Your task to perform on an android device: Go to Google Image 0: 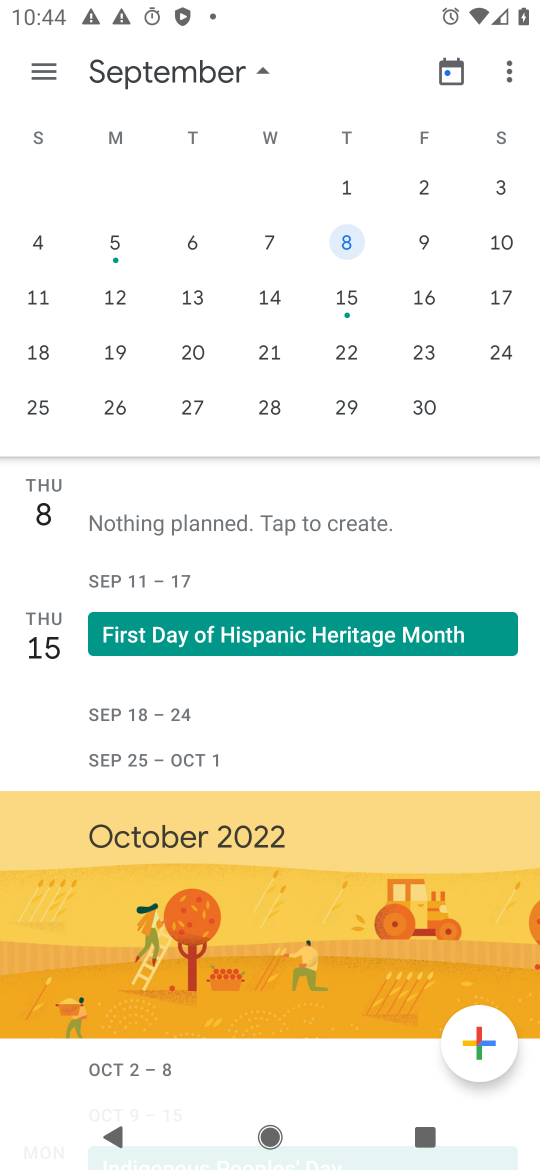
Step 0: press home button
Your task to perform on an android device: Go to Google Image 1: 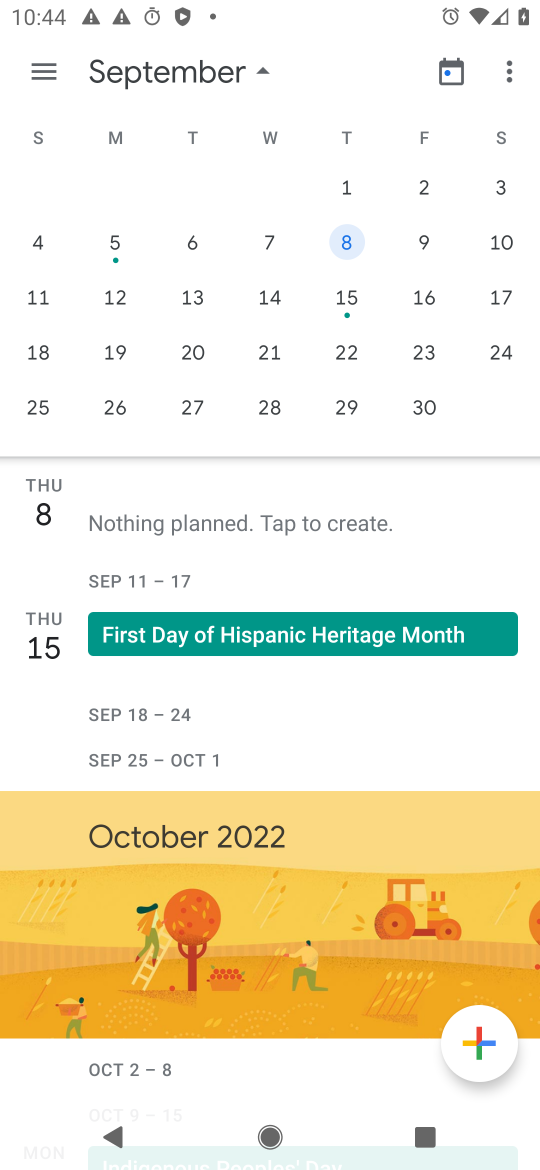
Step 1: click (356, 428)
Your task to perform on an android device: Go to Google Image 2: 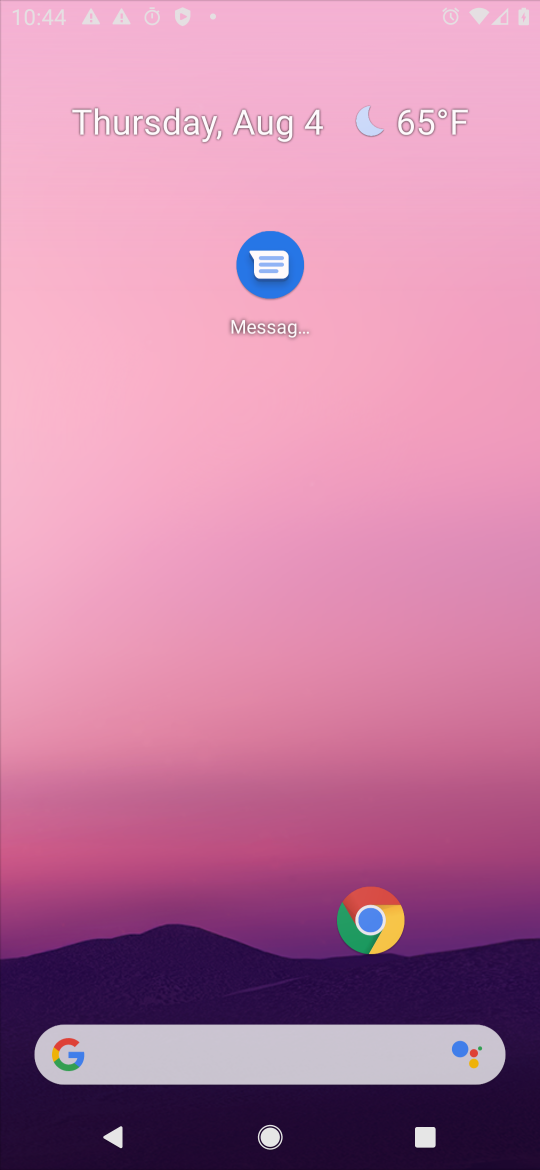
Step 2: press home button
Your task to perform on an android device: Go to Google Image 3: 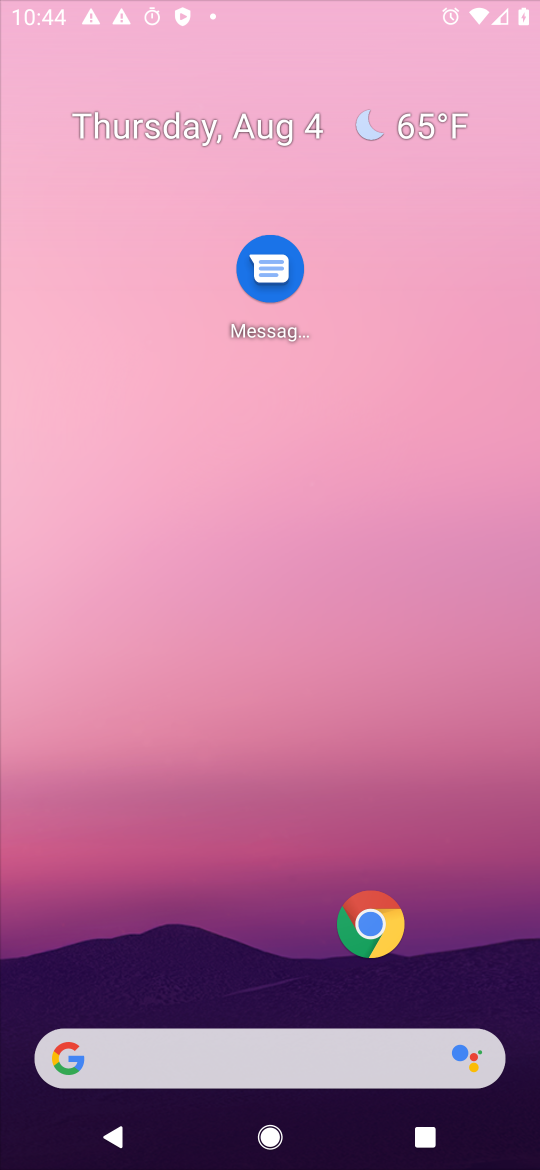
Step 3: click (339, 316)
Your task to perform on an android device: Go to Google Image 4: 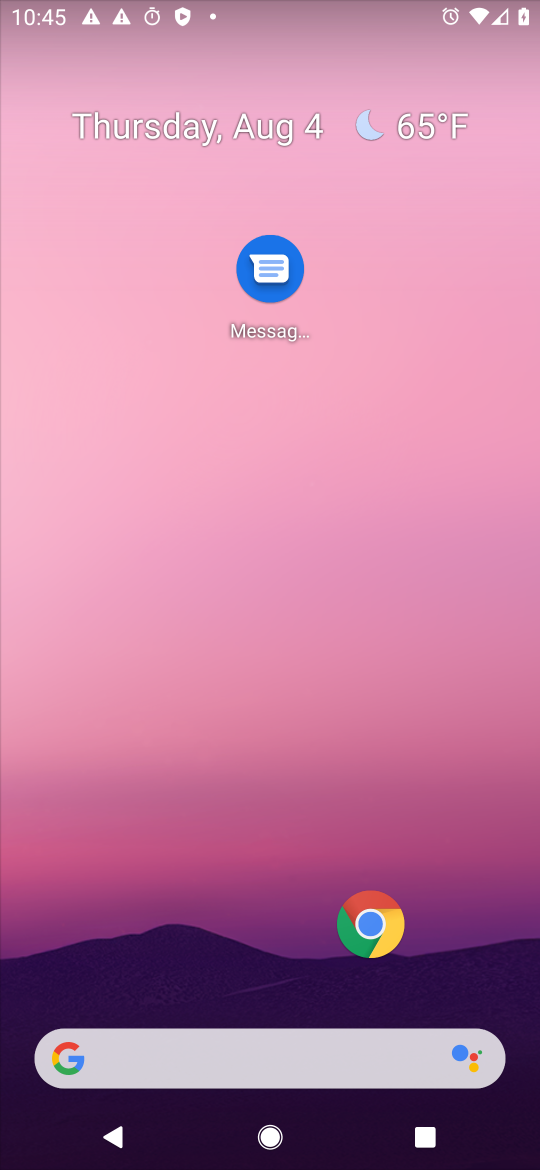
Step 4: drag from (292, 943) to (370, 167)
Your task to perform on an android device: Go to Google Image 5: 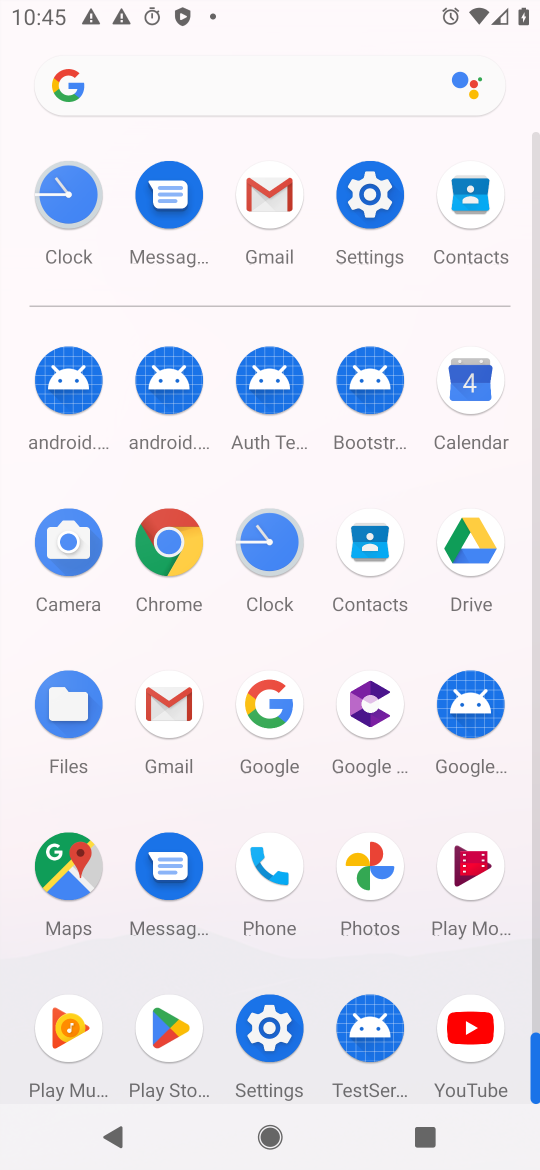
Step 5: drag from (312, 902) to (340, 558)
Your task to perform on an android device: Go to Google Image 6: 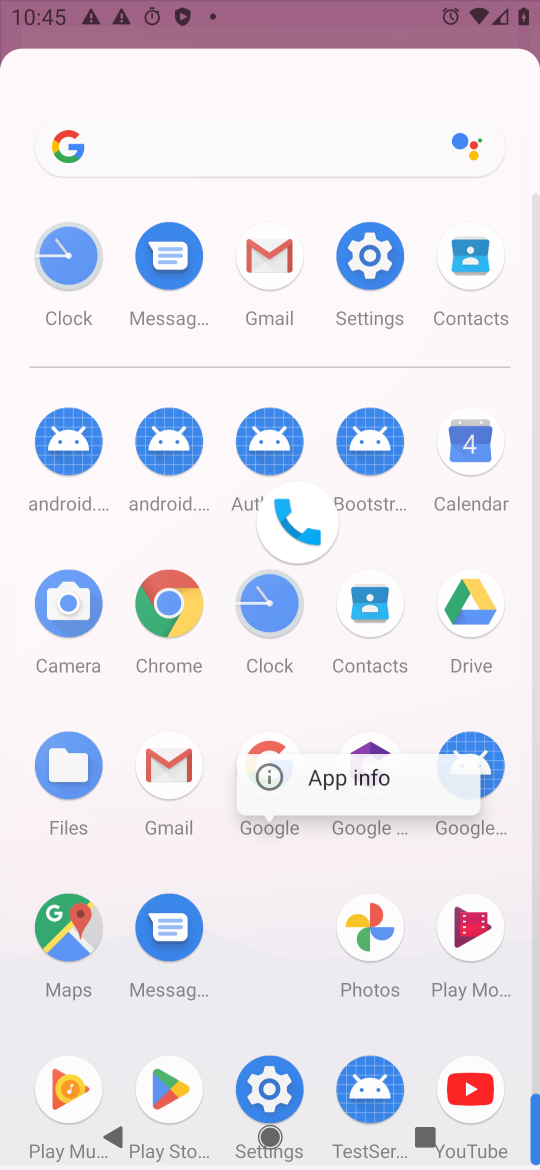
Step 6: drag from (344, 727) to (344, 516)
Your task to perform on an android device: Go to Google Image 7: 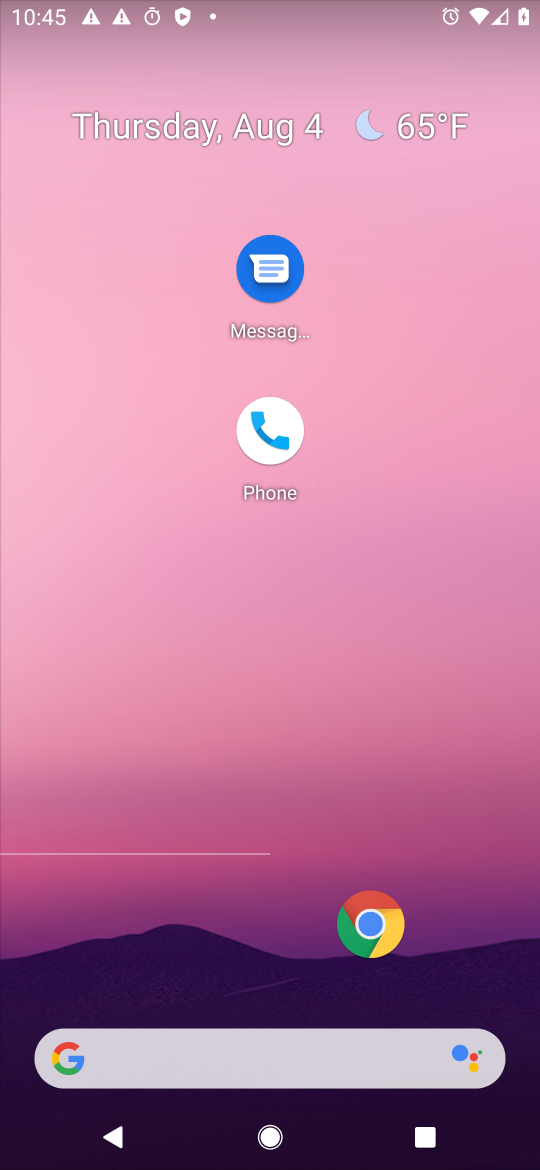
Step 7: drag from (276, 925) to (373, 307)
Your task to perform on an android device: Go to Google Image 8: 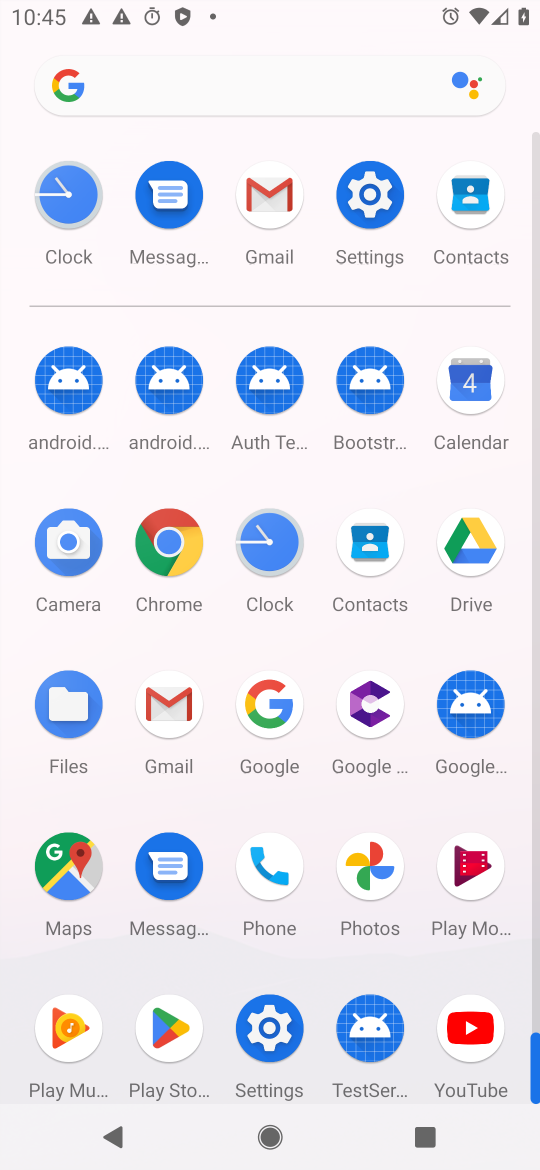
Step 8: click (266, 698)
Your task to perform on an android device: Go to Google Image 9: 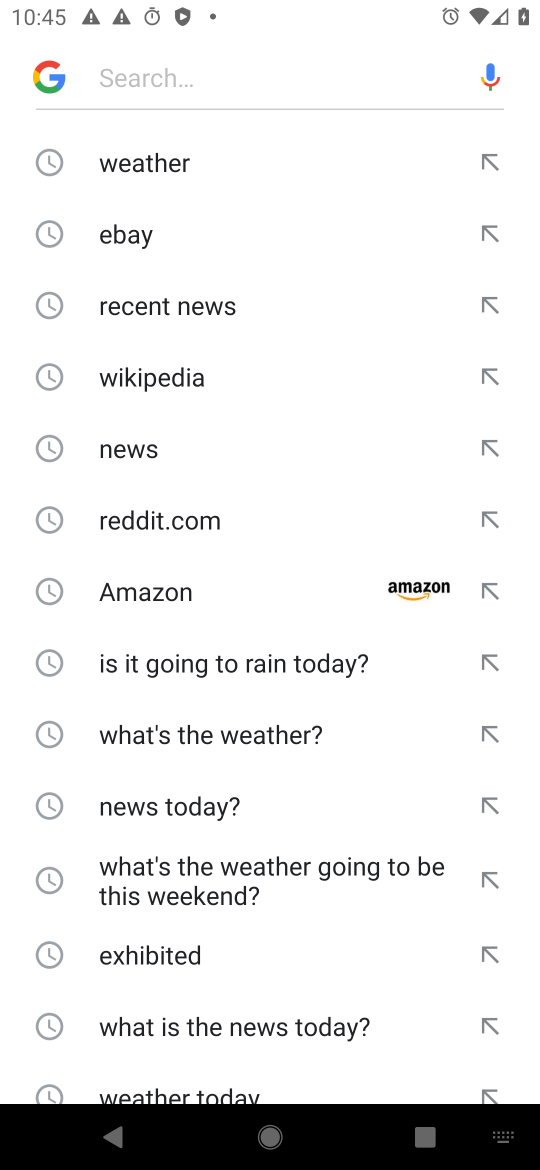
Step 9: task complete